Your task to perform on an android device: Search for Mexican restaurants on Maps Image 0: 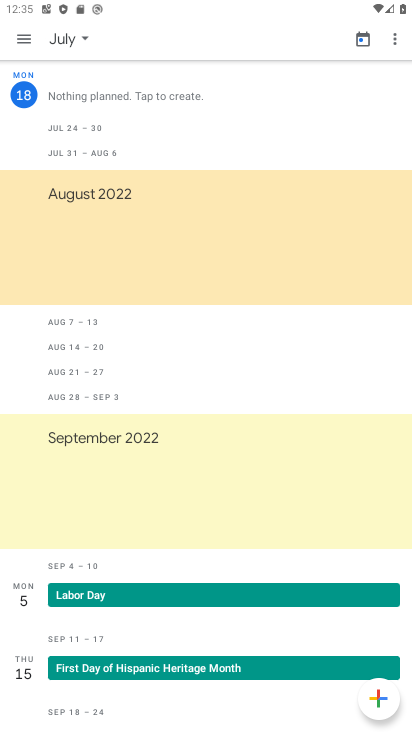
Step 0: press home button
Your task to perform on an android device: Search for Mexican restaurants on Maps Image 1: 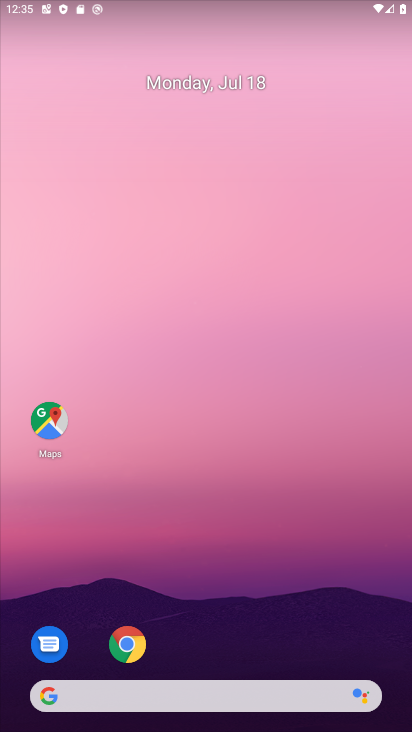
Step 1: click (47, 415)
Your task to perform on an android device: Search for Mexican restaurants on Maps Image 2: 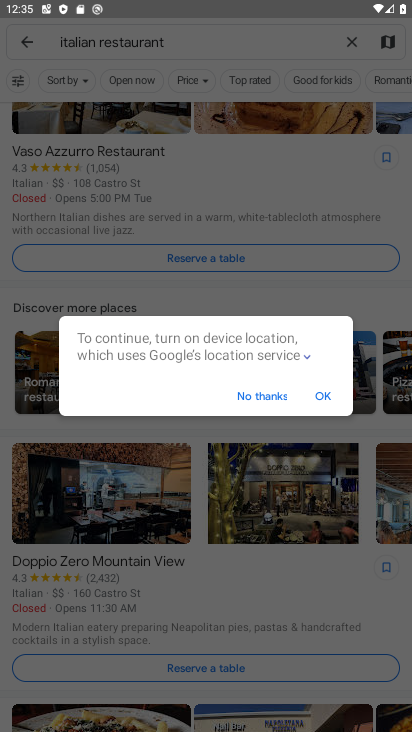
Step 2: click (323, 398)
Your task to perform on an android device: Search for Mexican restaurants on Maps Image 3: 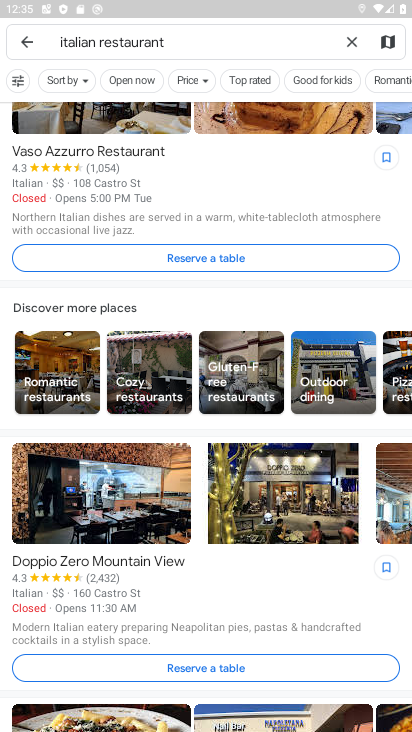
Step 3: click (347, 41)
Your task to perform on an android device: Search for Mexican restaurants on Maps Image 4: 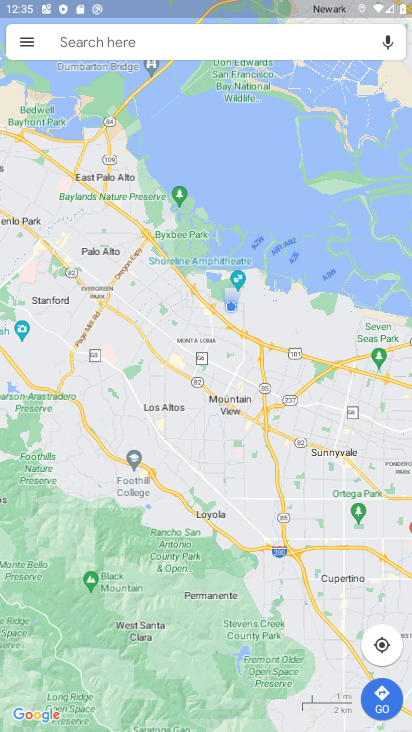
Step 4: click (116, 40)
Your task to perform on an android device: Search for Mexican restaurants on Maps Image 5: 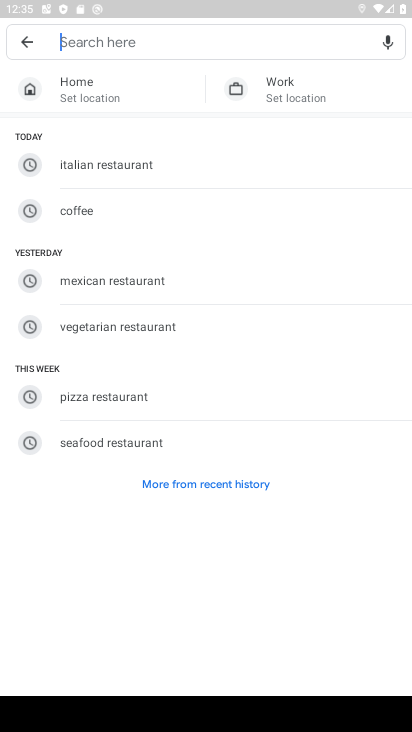
Step 5: click (104, 286)
Your task to perform on an android device: Search for Mexican restaurants on Maps Image 6: 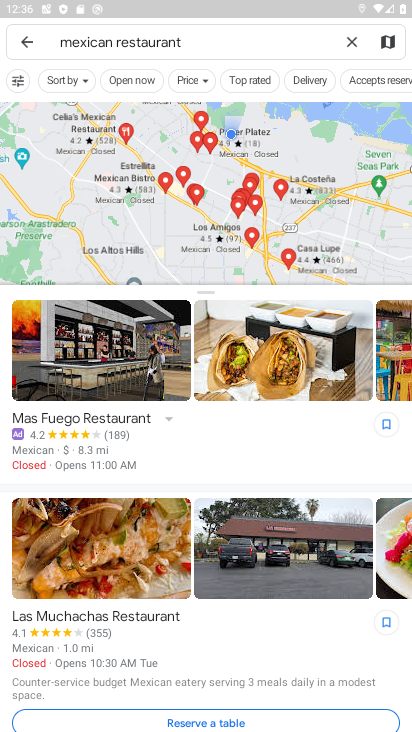
Step 6: task complete